Your task to perform on an android device: Go to notification settings Image 0: 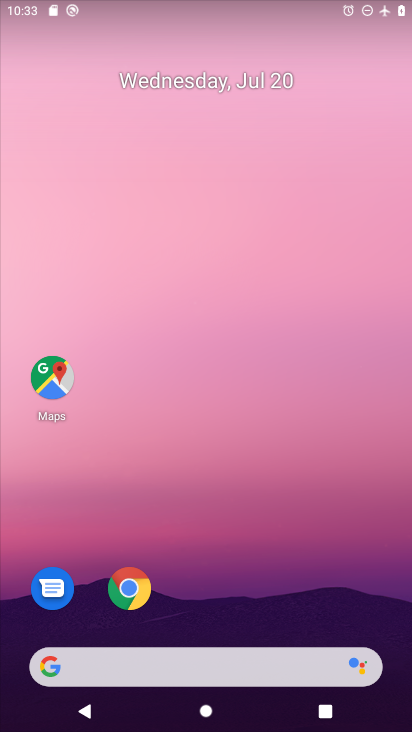
Step 0: drag from (211, 610) to (204, 243)
Your task to perform on an android device: Go to notification settings Image 1: 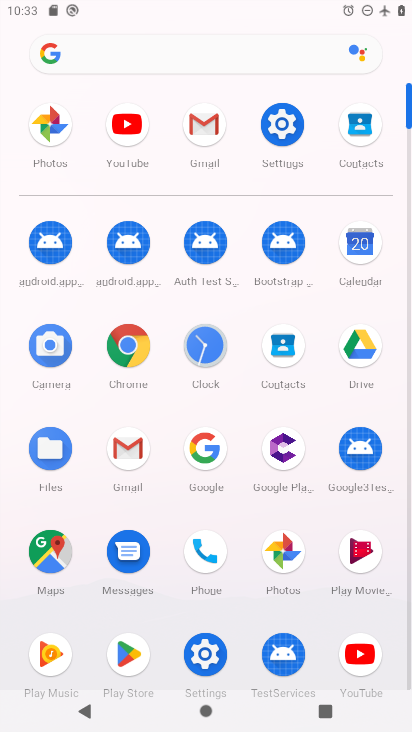
Step 1: click (277, 127)
Your task to perform on an android device: Go to notification settings Image 2: 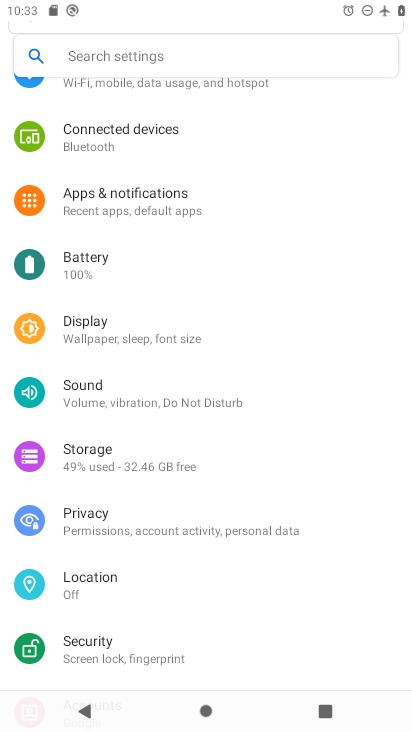
Step 2: click (178, 211)
Your task to perform on an android device: Go to notification settings Image 3: 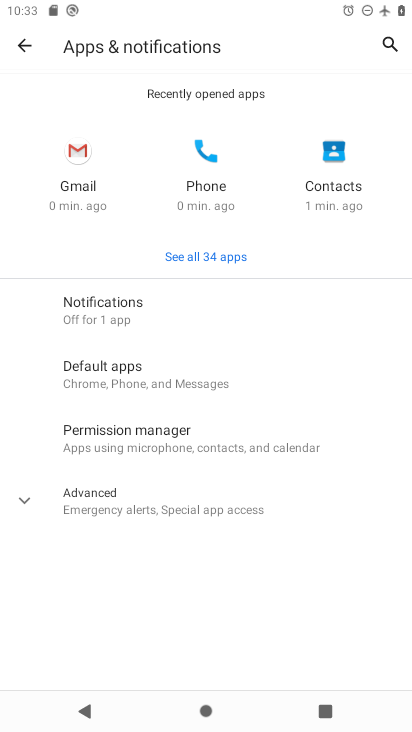
Step 3: task complete